Your task to perform on an android device: set default search engine in the chrome app Image 0: 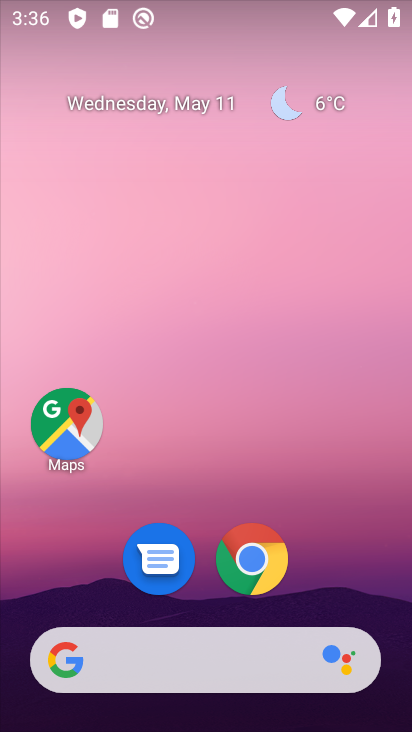
Step 0: press home button
Your task to perform on an android device: set default search engine in the chrome app Image 1: 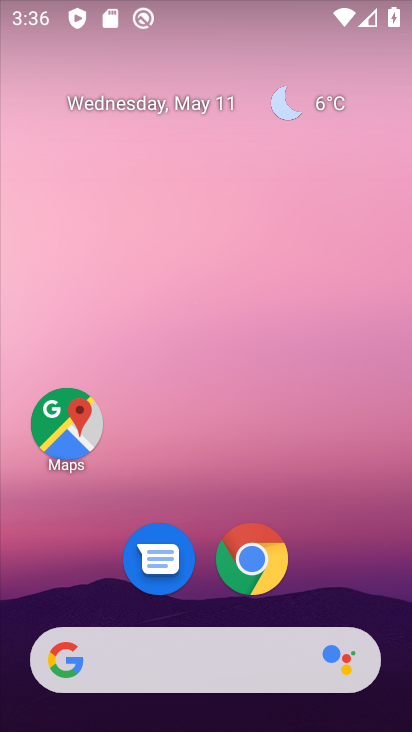
Step 1: click (314, 47)
Your task to perform on an android device: set default search engine in the chrome app Image 2: 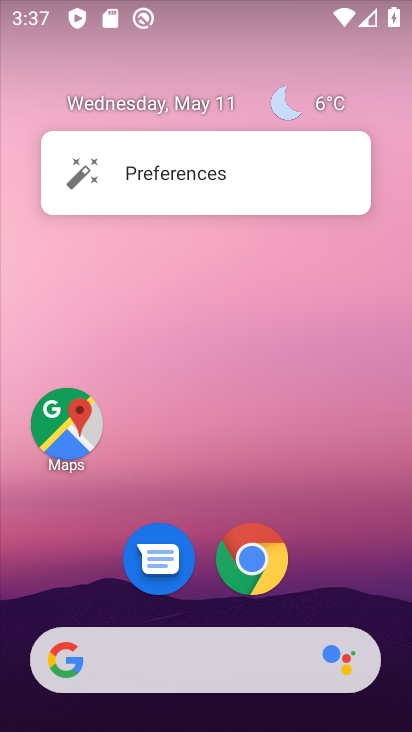
Step 2: drag from (327, 533) to (274, 179)
Your task to perform on an android device: set default search engine in the chrome app Image 3: 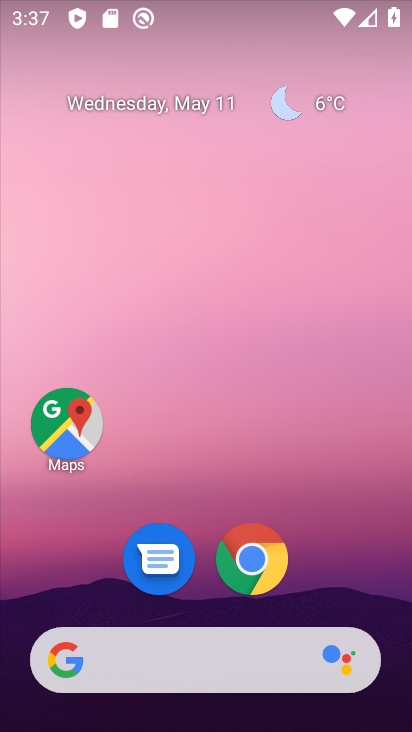
Step 3: drag from (326, 578) to (357, 47)
Your task to perform on an android device: set default search engine in the chrome app Image 4: 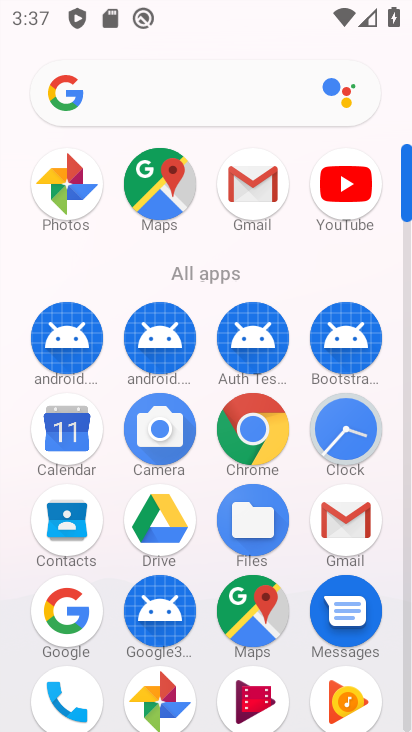
Step 4: click (238, 427)
Your task to perform on an android device: set default search engine in the chrome app Image 5: 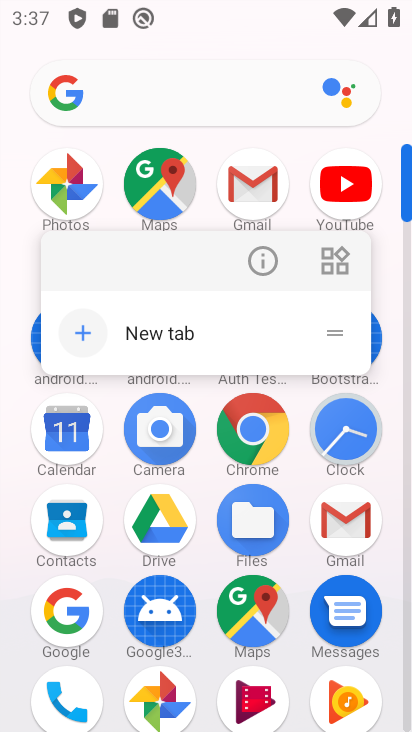
Step 5: click (254, 456)
Your task to perform on an android device: set default search engine in the chrome app Image 6: 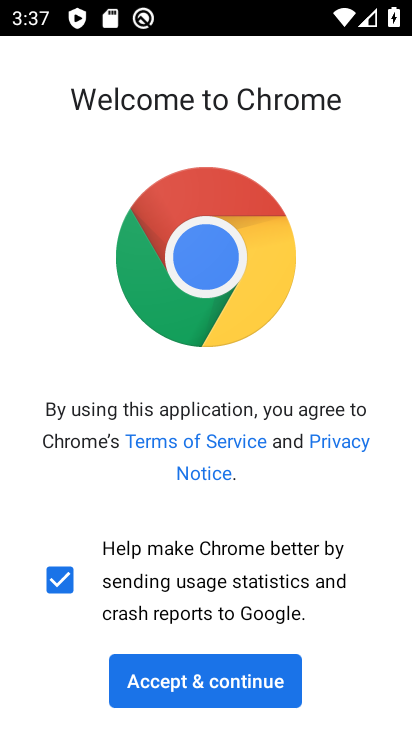
Step 6: click (227, 674)
Your task to perform on an android device: set default search engine in the chrome app Image 7: 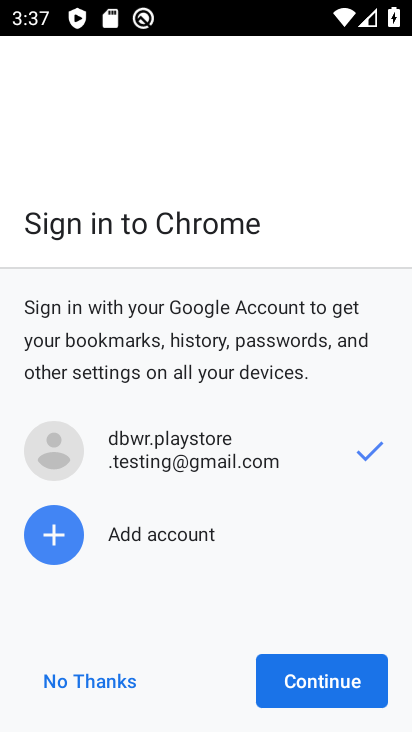
Step 7: click (96, 682)
Your task to perform on an android device: set default search engine in the chrome app Image 8: 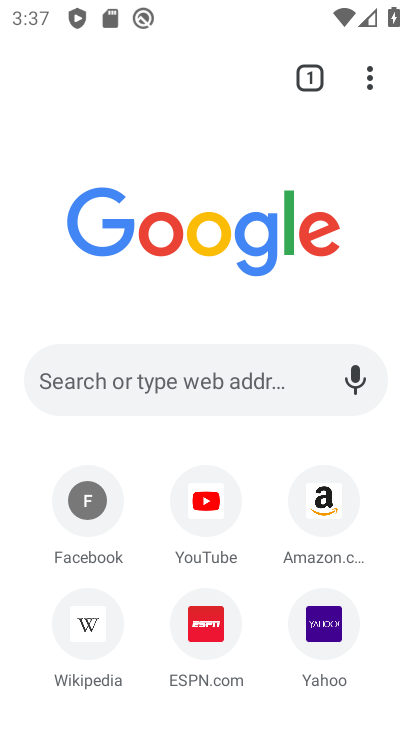
Step 8: drag from (383, 77) to (73, 632)
Your task to perform on an android device: set default search engine in the chrome app Image 9: 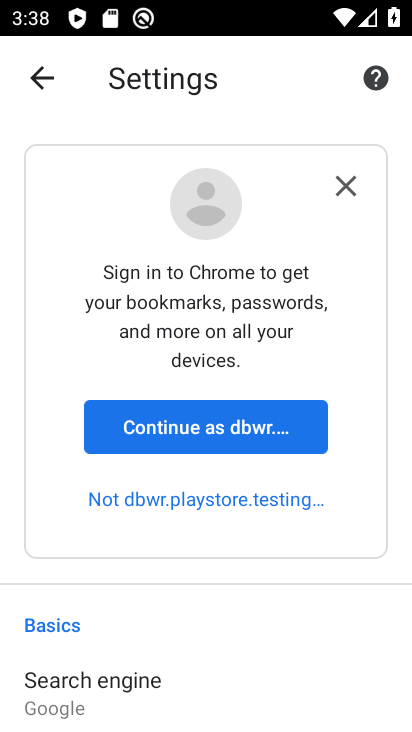
Step 9: drag from (185, 656) to (225, 140)
Your task to perform on an android device: set default search engine in the chrome app Image 10: 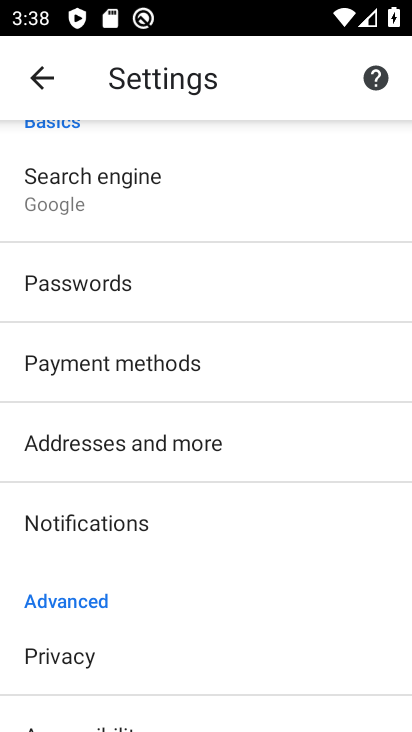
Step 10: click (73, 192)
Your task to perform on an android device: set default search engine in the chrome app Image 11: 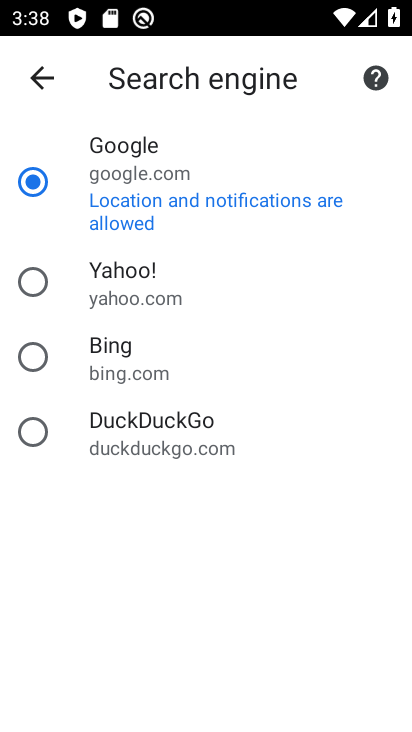
Step 11: task complete